Your task to perform on an android device: Go to Maps Image 0: 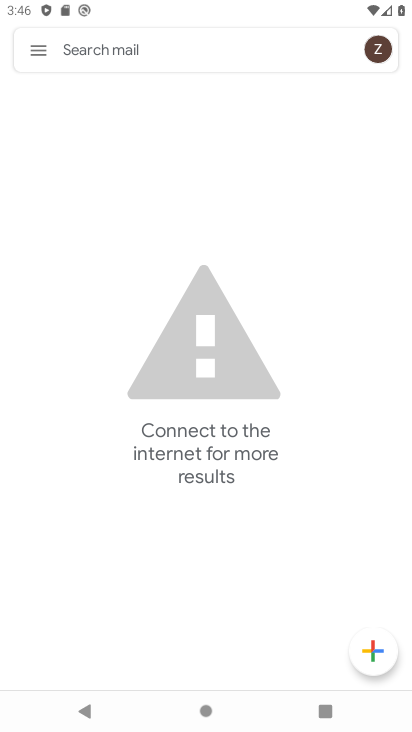
Step 0: press back button
Your task to perform on an android device: Go to Maps Image 1: 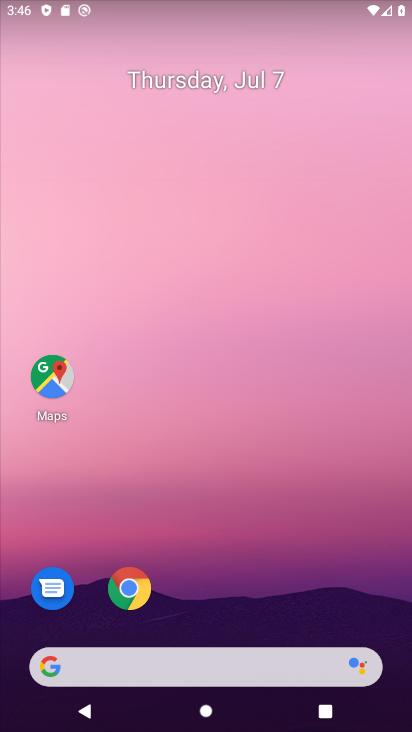
Step 1: drag from (237, 698) to (125, 244)
Your task to perform on an android device: Go to Maps Image 2: 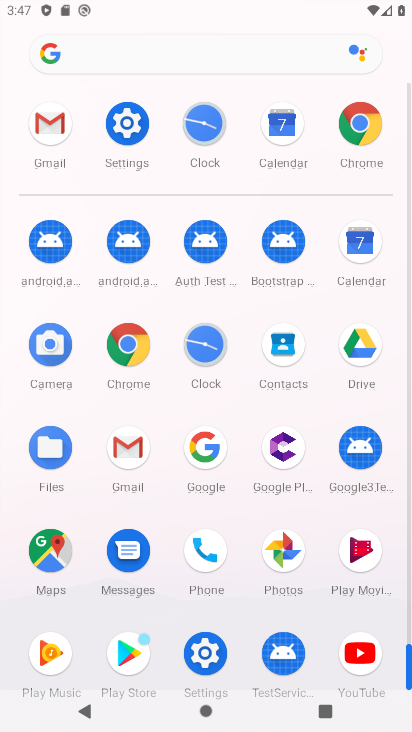
Step 2: click (26, 544)
Your task to perform on an android device: Go to Maps Image 3: 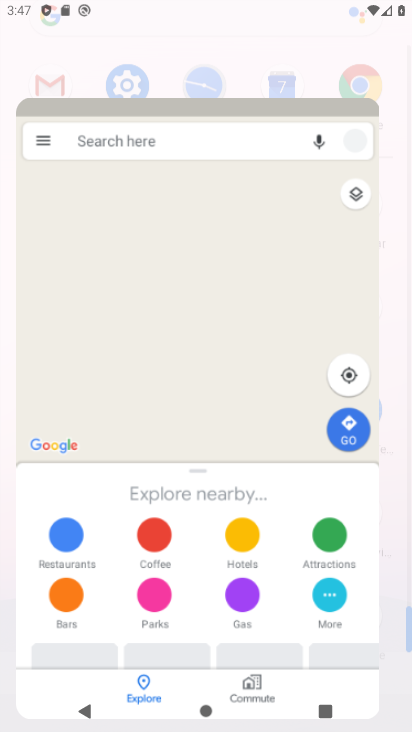
Step 3: click (43, 550)
Your task to perform on an android device: Go to Maps Image 4: 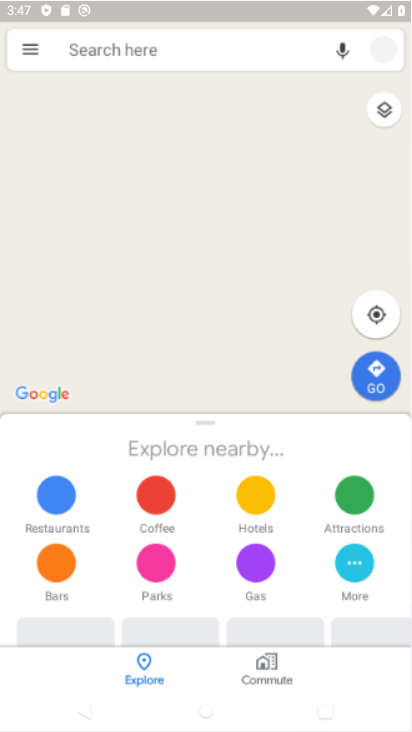
Step 4: click (45, 547)
Your task to perform on an android device: Go to Maps Image 5: 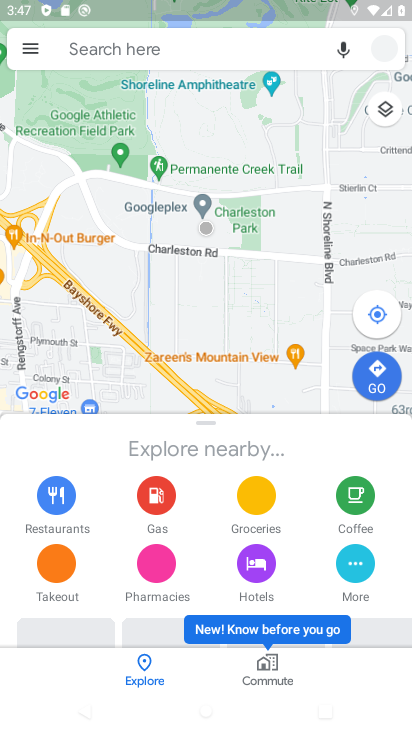
Step 5: press back button
Your task to perform on an android device: Go to Maps Image 6: 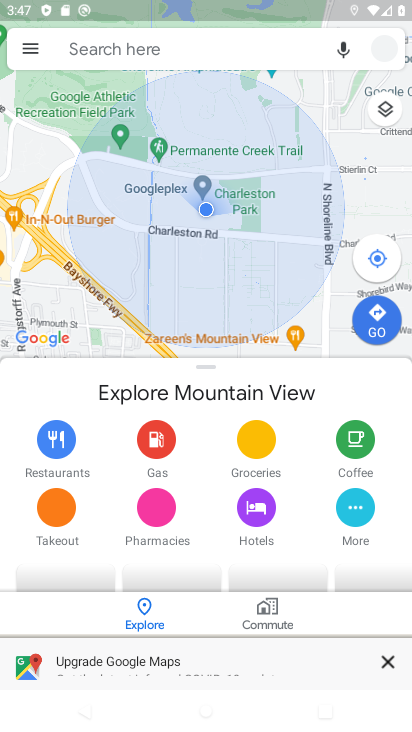
Step 6: press back button
Your task to perform on an android device: Go to Maps Image 7: 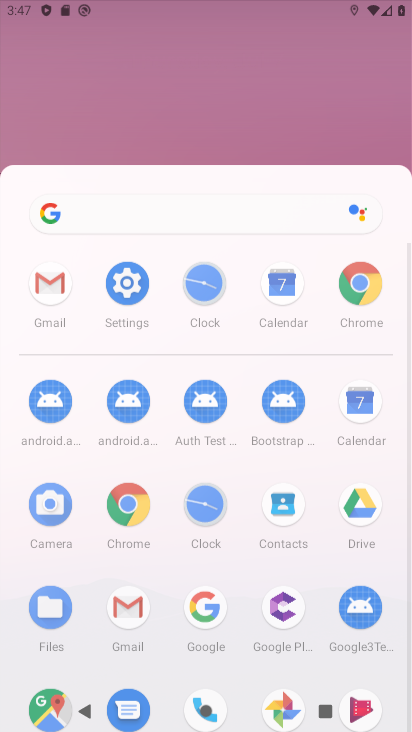
Step 7: press home button
Your task to perform on an android device: Go to Maps Image 8: 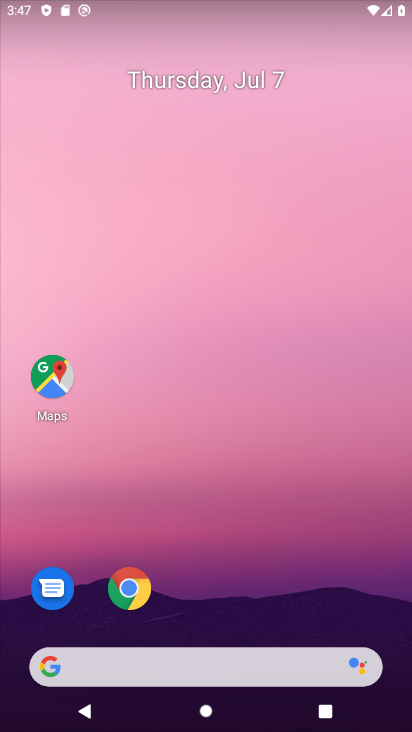
Step 8: drag from (288, 702) to (125, 122)
Your task to perform on an android device: Go to Maps Image 9: 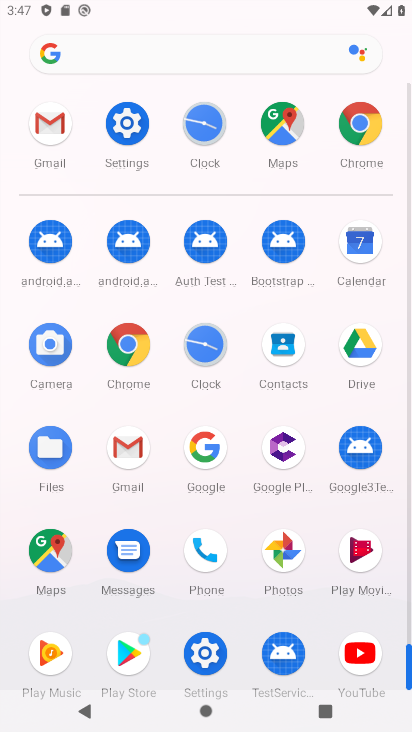
Step 9: click (38, 546)
Your task to perform on an android device: Go to Maps Image 10: 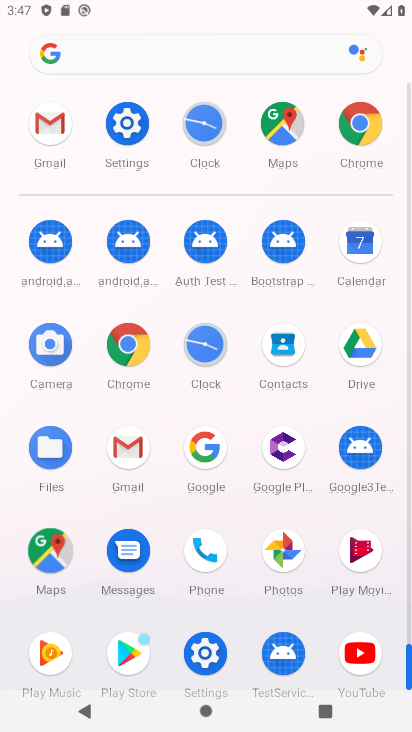
Step 10: click (42, 544)
Your task to perform on an android device: Go to Maps Image 11: 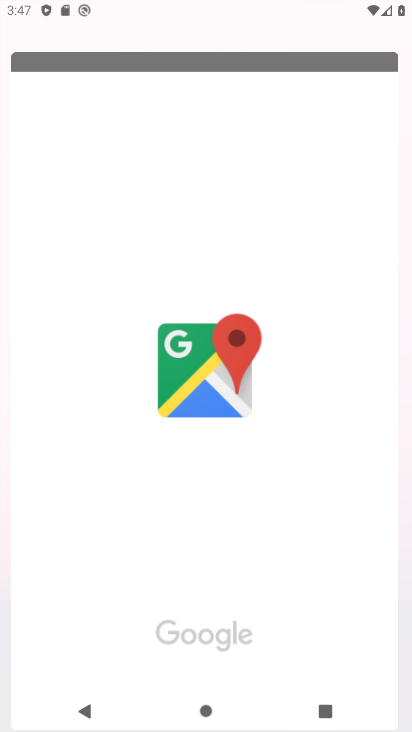
Step 11: click (42, 544)
Your task to perform on an android device: Go to Maps Image 12: 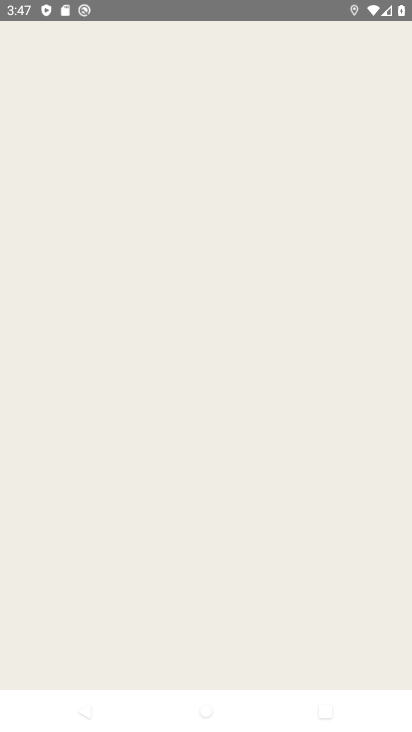
Step 12: click (44, 542)
Your task to perform on an android device: Go to Maps Image 13: 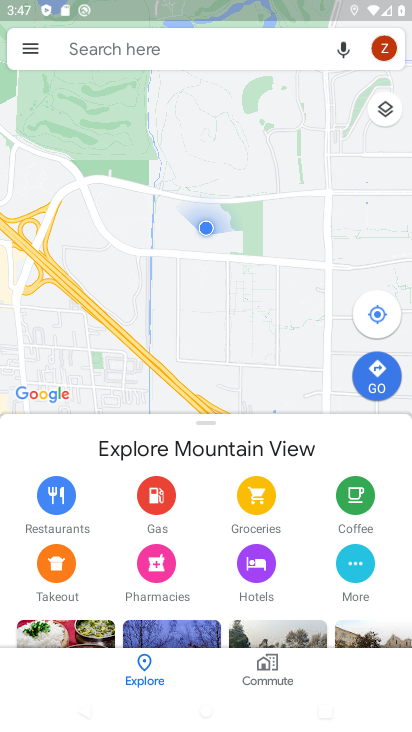
Step 13: task complete